Your task to perform on an android device: Show me productivity apps on the Play Store Image 0: 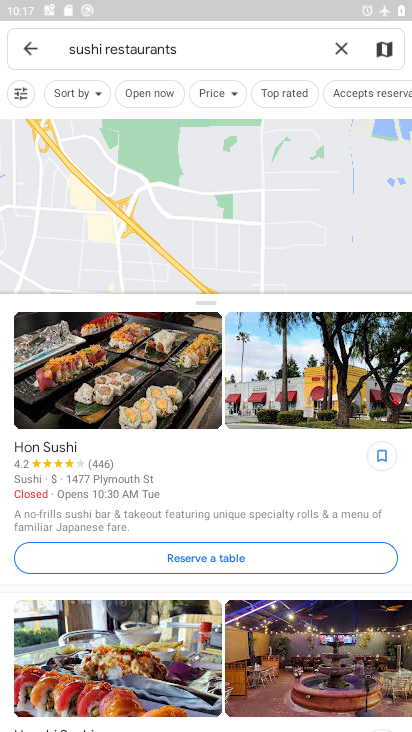
Step 0: press home button
Your task to perform on an android device: Show me productivity apps on the Play Store Image 1: 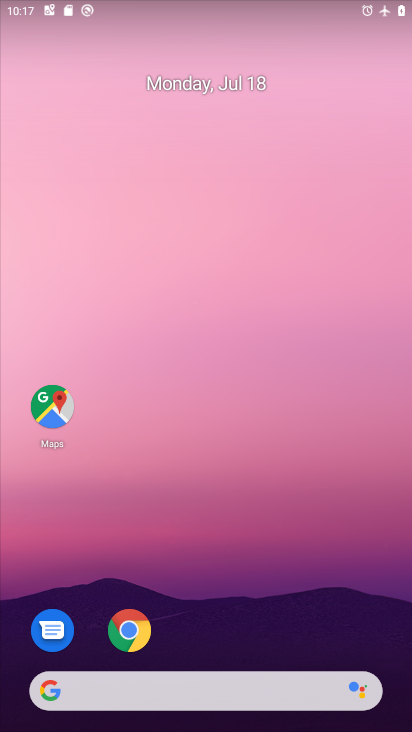
Step 1: drag from (241, 632) to (225, 165)
Your task to perform on an android device: Show me productivity apps on the Play Store Image 2: 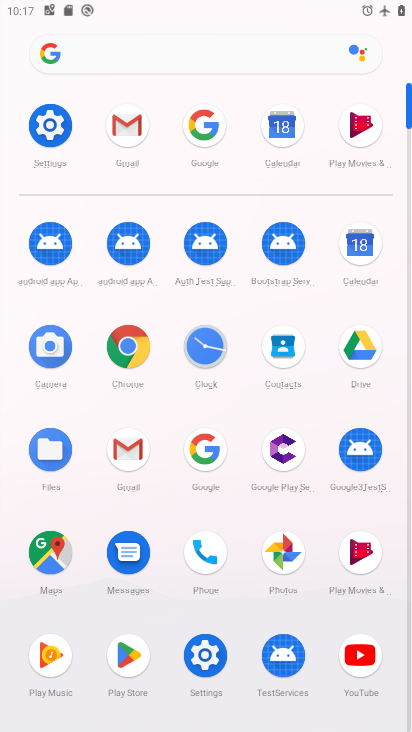
Step 2: click (138, 648)
Your task to perform on an android device: Show me productivity apps on the Play Store Image 3: 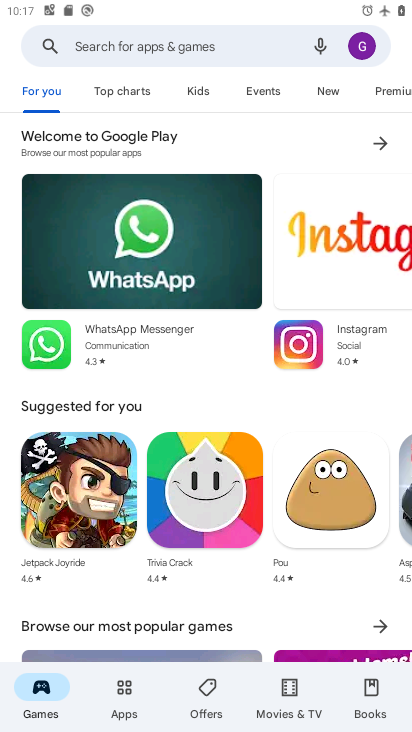
Step 3: click (132, 703)
Your task to perform on an android device: Show me productivity apps on the Play Store Image 4: 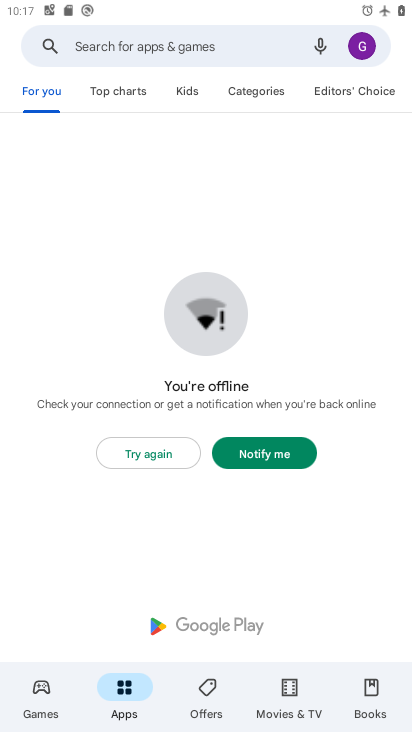
Step 4: click (246, 94)
Your task to perform on an android device: Show me productivity apps on the Play Store Image 5: 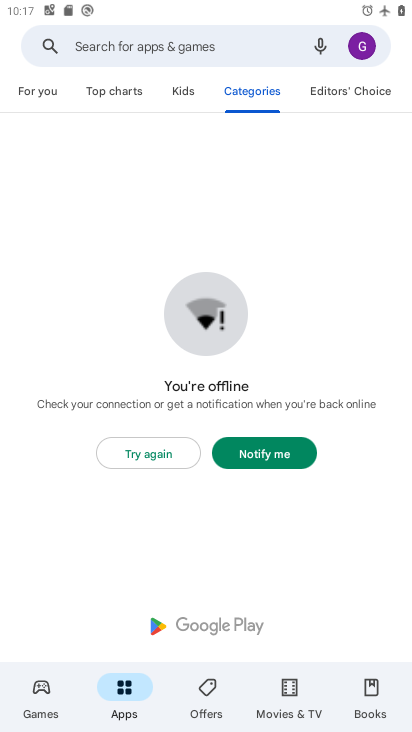
Step 5: task complete